Your task to perform on an android device: check data usage Image 0: 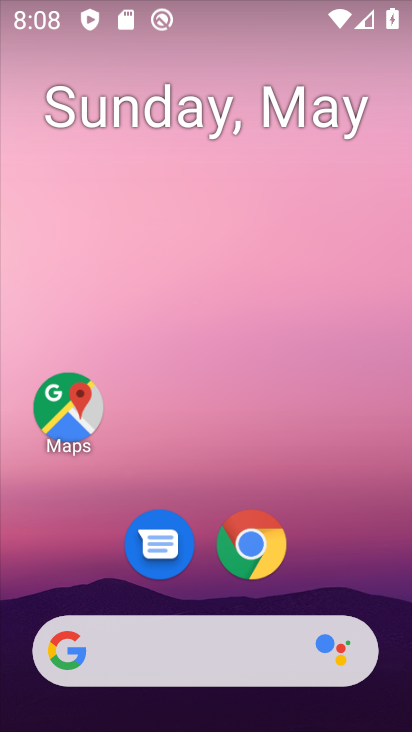
Step 0: drag from (314, 465) to (234, 20)
Your task to perform on an android device: check data usage Image 1: 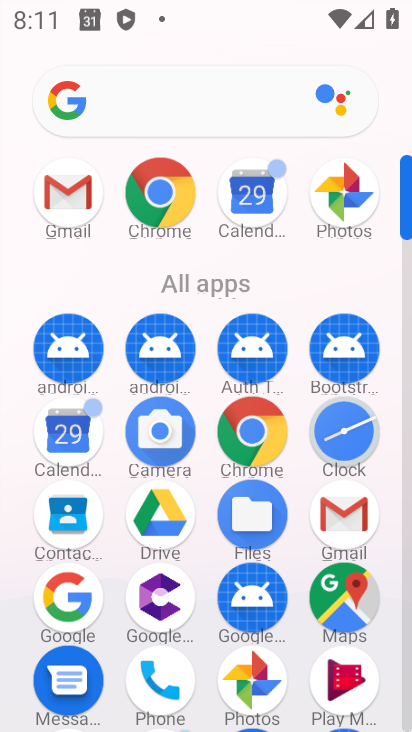
Step 1: drag from (377, 558) to (373, 116)
Your task to perform on an android device: check data usage Image 2: 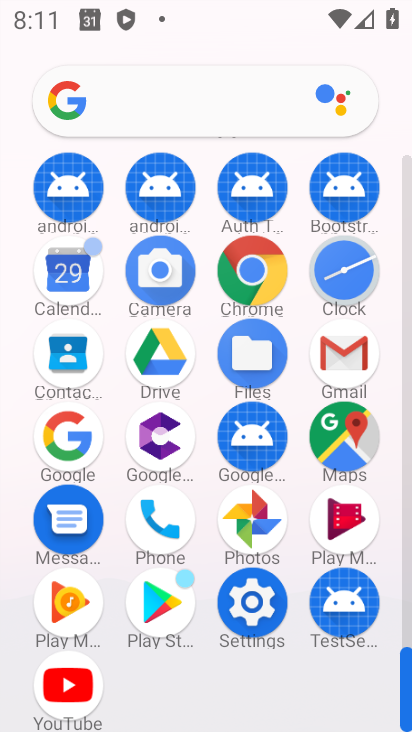
Step 2: click (264, 601)
Your task to perform on an android device: check data usage Image 3: 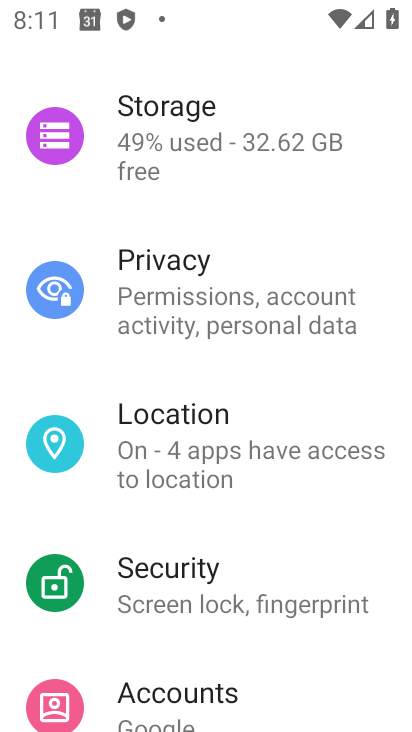
Step 3: drag from (177, 281) to (256, 711)
Your task to perform on an android device: check data usage Image 4: 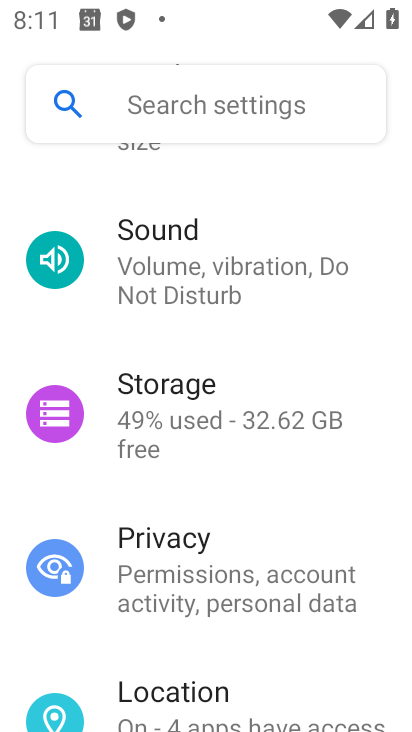
Step 4: drag from (196, 182) to (231, 620)
Your task to perform on an android device: check data usage Image 5: 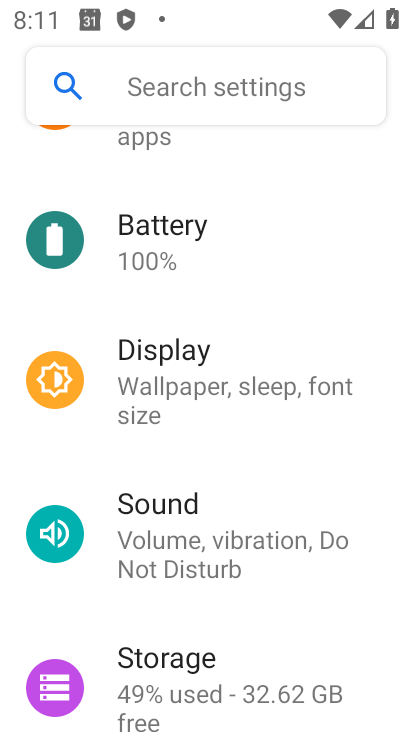
Step 5: drag from (284, 229) to (311, 664)
Your task to perform on an android device: check data usage Image 6: 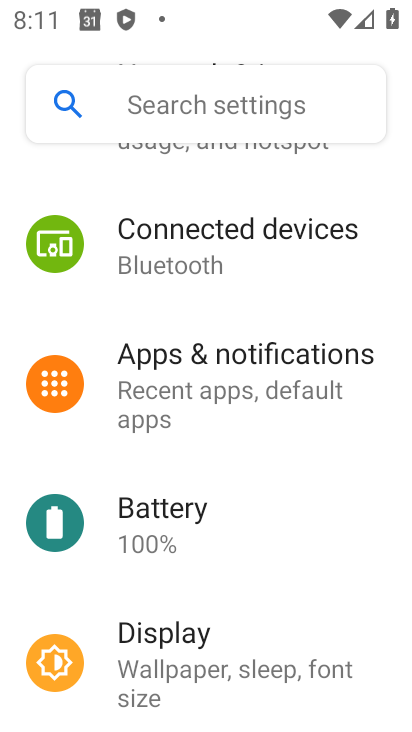
Step 6: drag from (310, 133) to (326, 723)
Your task to perform on an android device: check data usage Image 7: 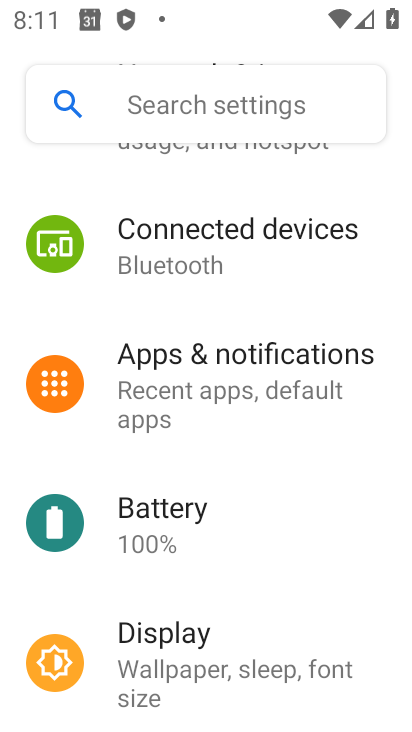
Step 7: drag from (310, 239) to (272, 651)
Your task to perform on an android device: check data usage Image 8: 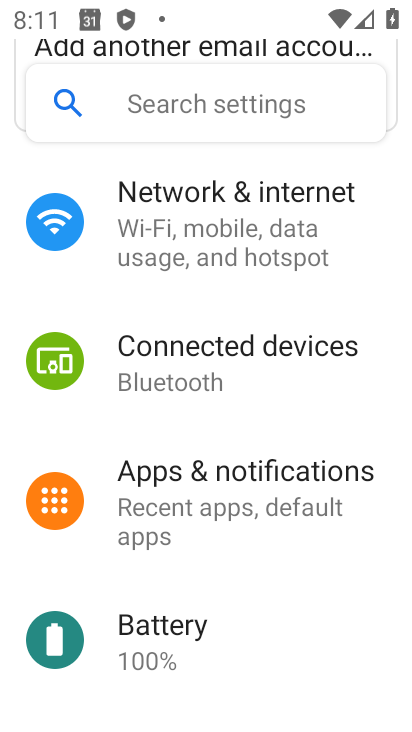
Step 8: click (249, 237)
Your task to perform on an android device: check data usage Image 9: 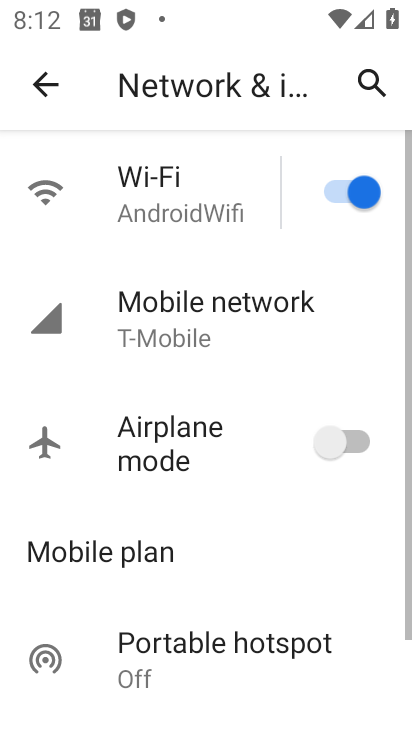
Step 9: click (189, 323)
Your task to perform on an android device: check data usage Image 10: 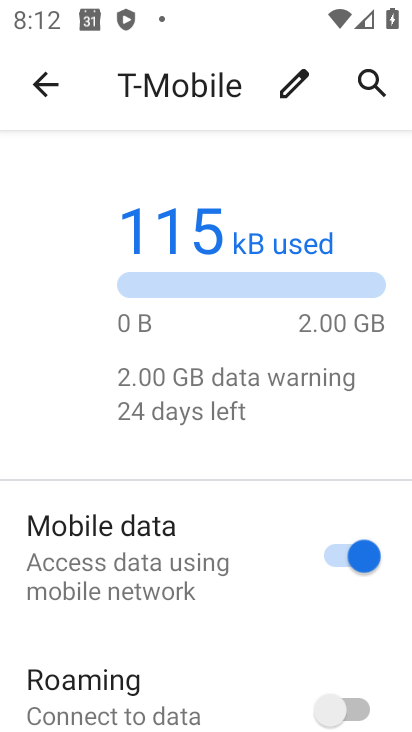
Step 10: task complete